Your task to perform on an android device: Go to internet settings Image 0: 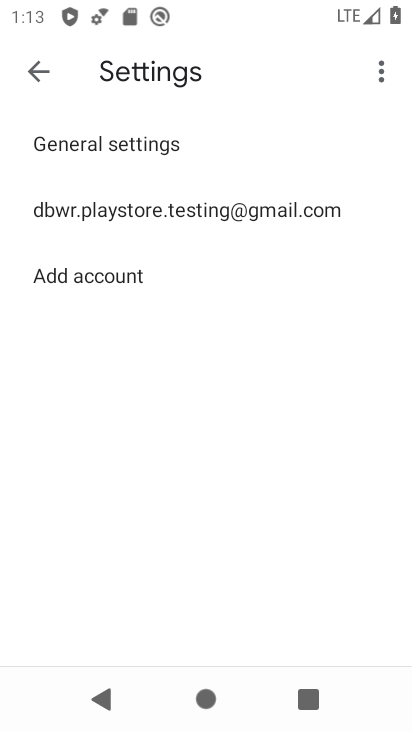
Step 0: press home button
Your task to perform on an android device: Go to internet settings Image 1: 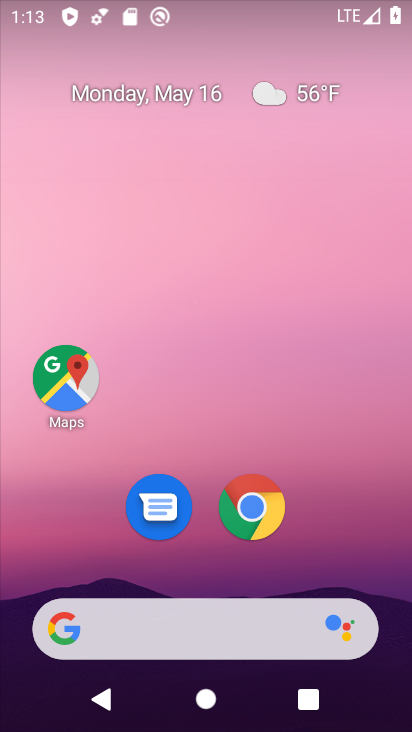
Step 1: drag from (194, 570) to (192, 162)
Your task to perform on an android device: Go to internet settings Image 2: 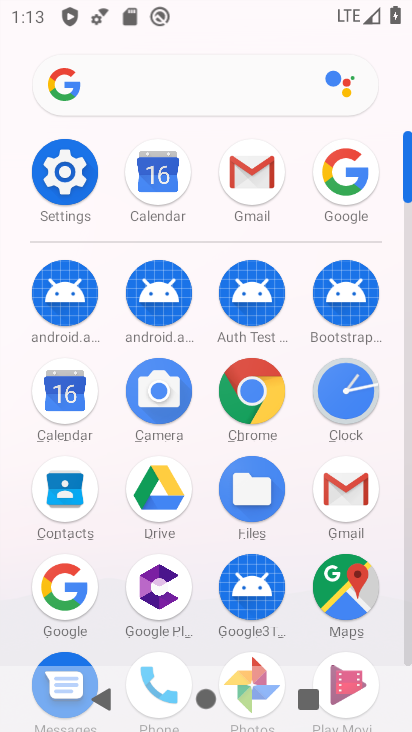
Step 2: click (69, 190)
Your task to perform on an android device: Go to internet settings Image 3: 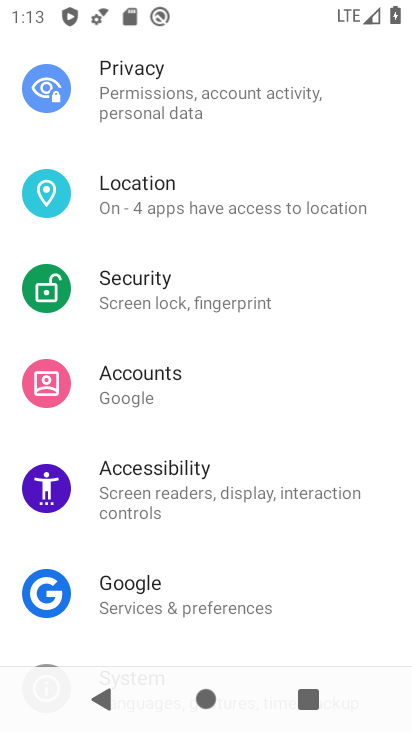
Step 3: drag from (198, 181) to (216, 440)
Your task to perform on an android device: Go to internet settings Image 4: 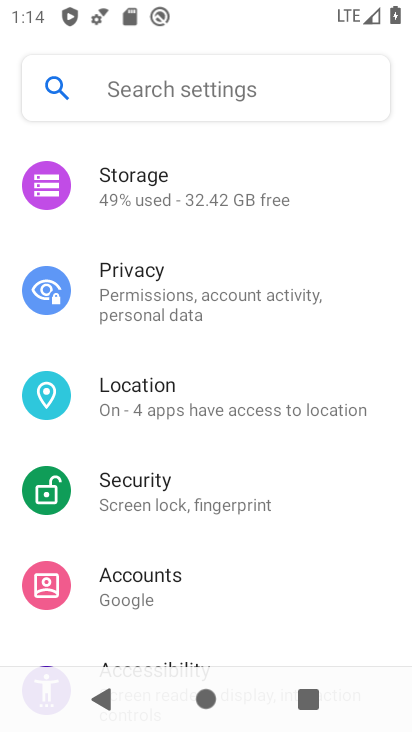
Step 4: drag from (237, 602) to (240, 281)
Your task to perform on an android device: Go to internet settings Image 5: 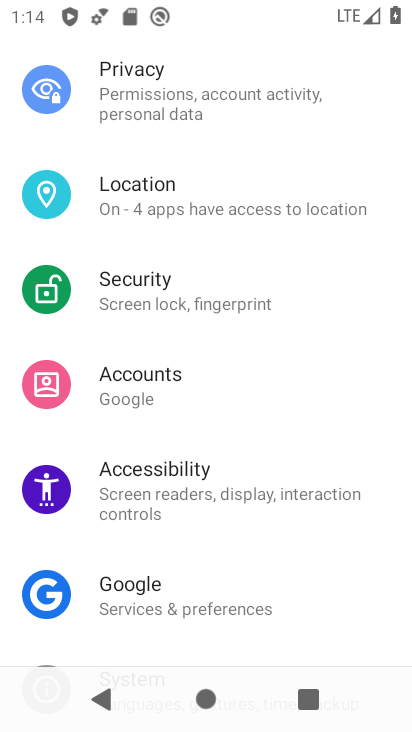
Step 5: drag from (226, 532) to (226, 226)
Your task to perform on an android device: Go to internet settings Image 6: 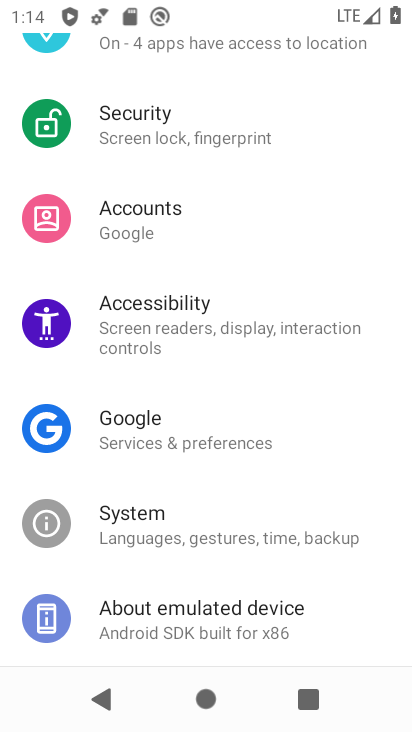
Step 6: drag from (227, 156) to (254, 522)
Your task to perform on an android device: Go to internet settings Image 7: 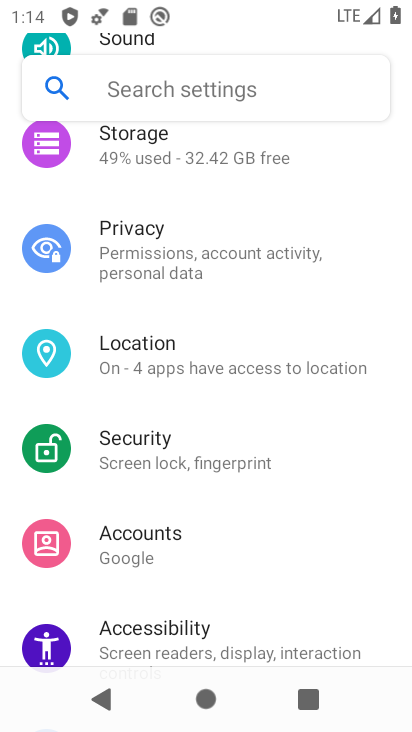
Step 7: drag from (222, 235) to (251, 492)
Your task to perform on an android device: Go to internet settings Image 8: 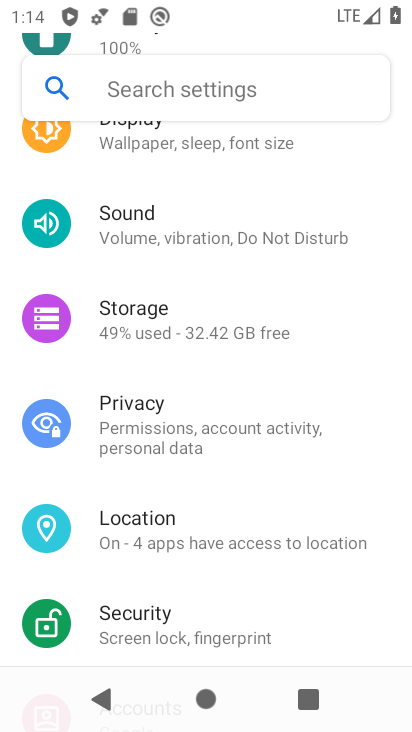
Step 8: drag from (226, 234) to (267, 572)
Your task to perform on an android device: Go to internet settings Image 9: 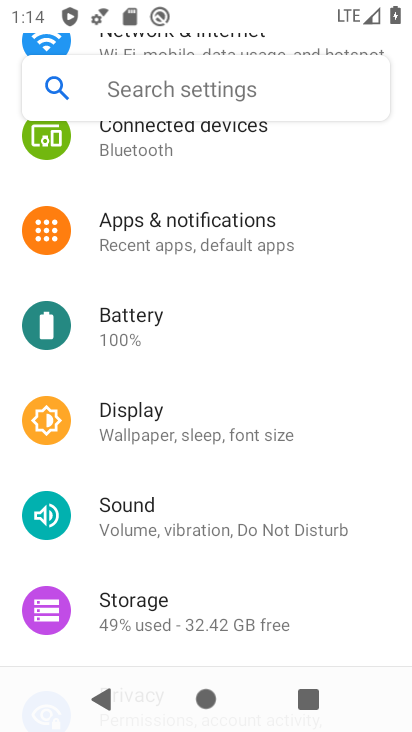
Step 9: drag from (260, 269) to (261, 560)
Your task to perform on an android device: Go to internet settings Image 10: 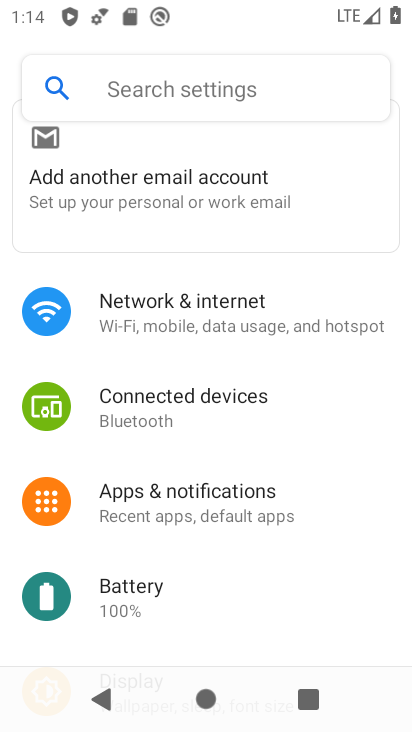
Step 10: click (205, 324)
Your task to perform on an android device: Go to internet settings Image 11: 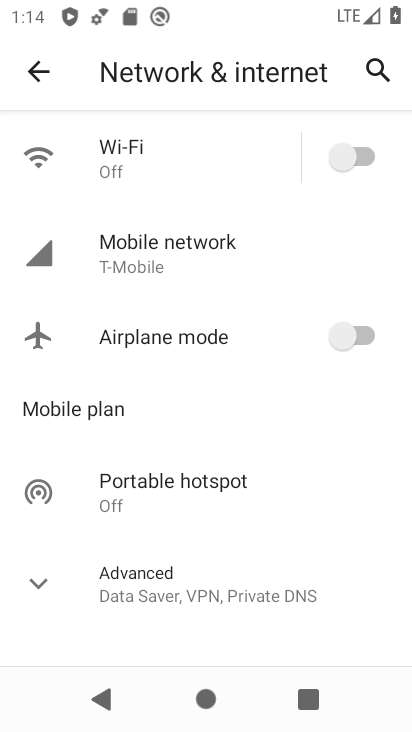
Step 11: click (223, 255)
Your task to perform on an android device: Go to internet settings Image 12: 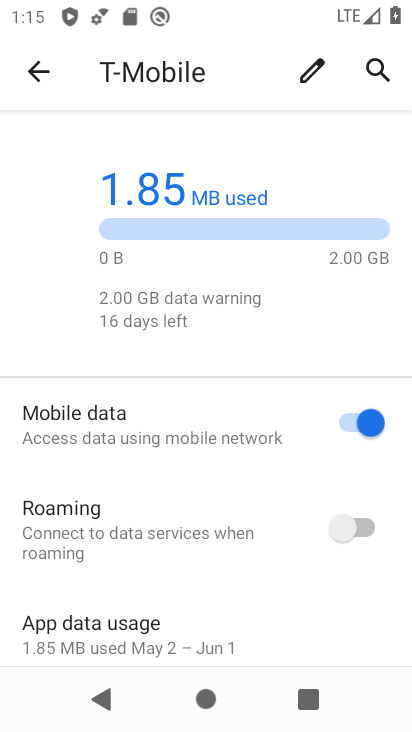
Step 12: task complete